Your task to perform on an android device: Open eBay Image 0: 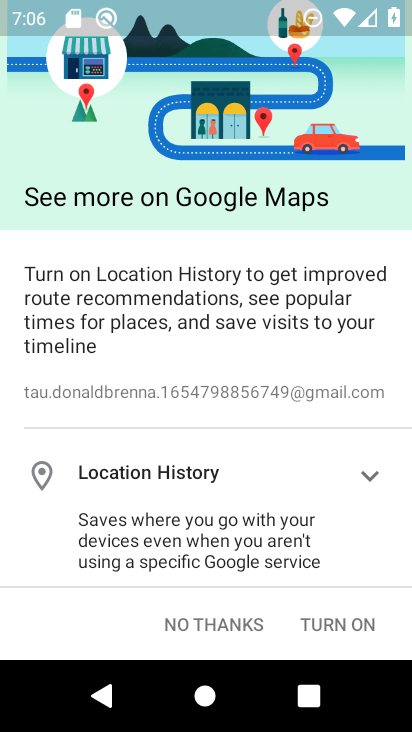
Step 0: press home button
Your task to perform on an android device: Open eBay Image 1: 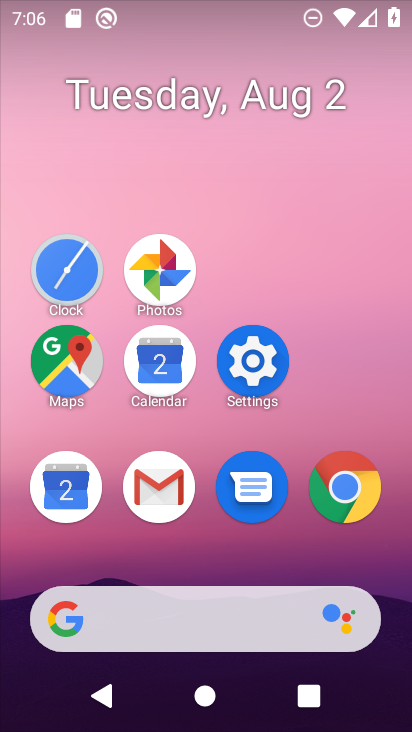
Step 1: click (345, 484)
Your task to perform on an android device: Open eBay Image 2: 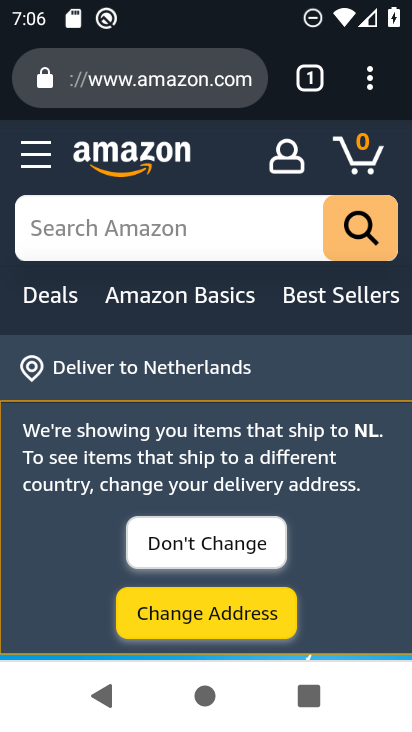
Step 2: click (371, 77)
Your task to perform on an android device: Open eBay Image 3: 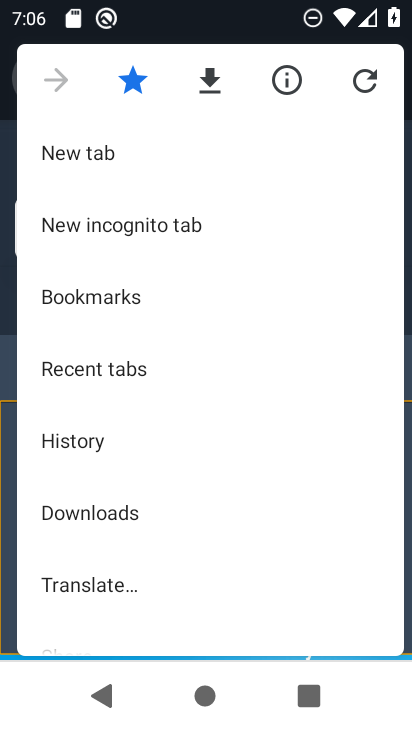
Step 3: click (88, 148)
Your task to perform on an android device: Open eBay Image 4: 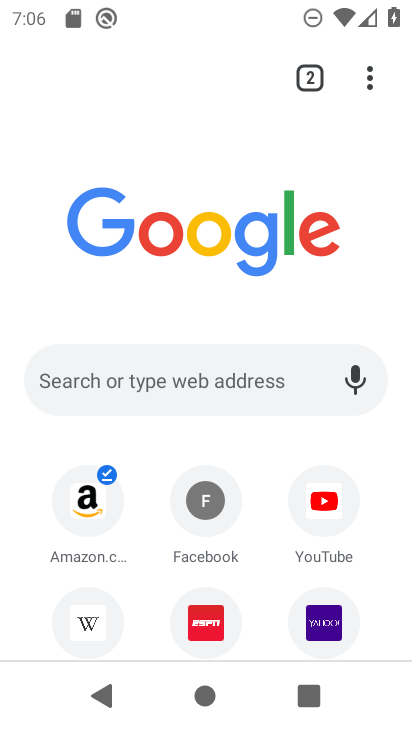
Step 4: click (154, 373)
Your task to perform on an android device: Open eBay Image 5: 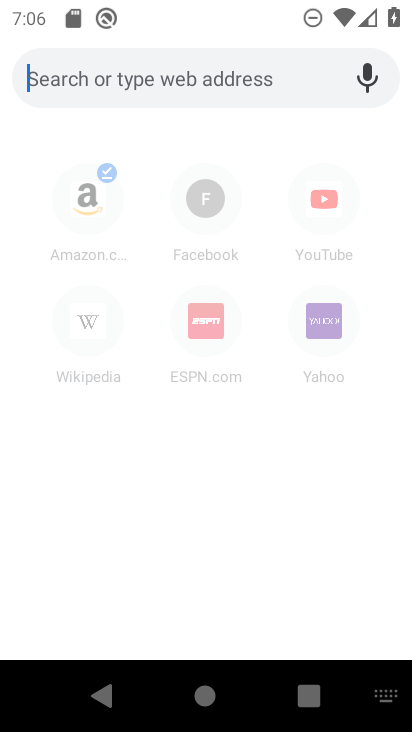
Step 5: type "ebay"
Your task to perform on an android device: Open eBay Image 6: 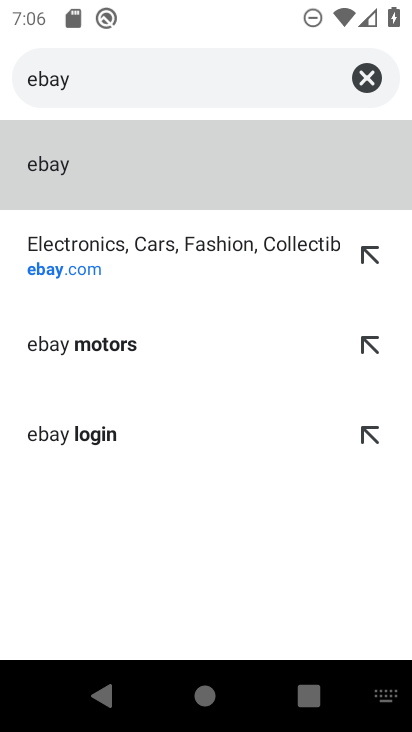
Step 6: click (64, 159)
Your task to perform on an android device: Open eBay Image 7: 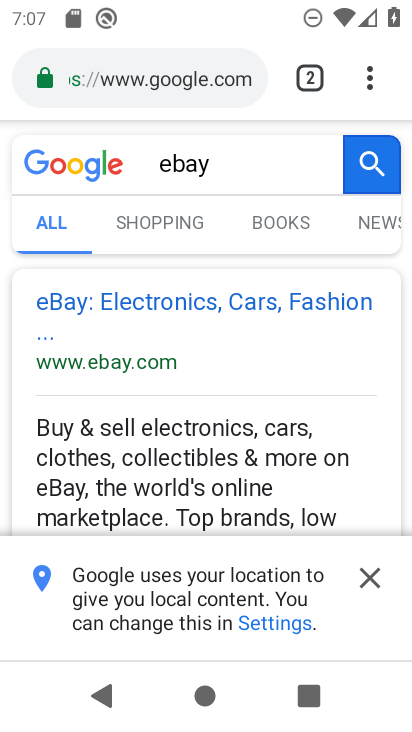
Step 7: click (152, 290)
Your task to perform on an android device: Open eBay Image 8: 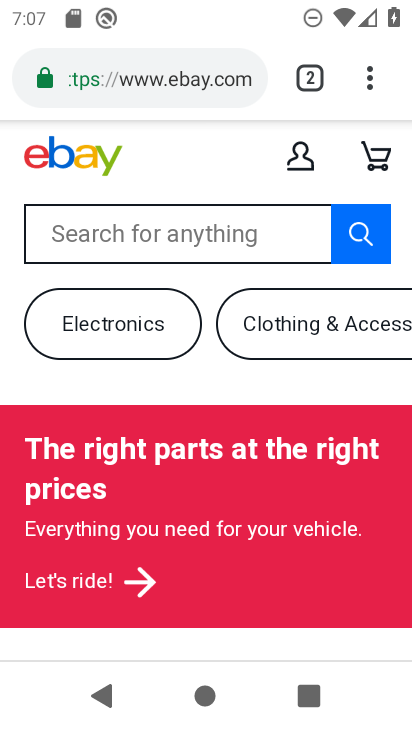
Step 8: task complete